Your task to perform on an android device: change keyboard looks Image 0: 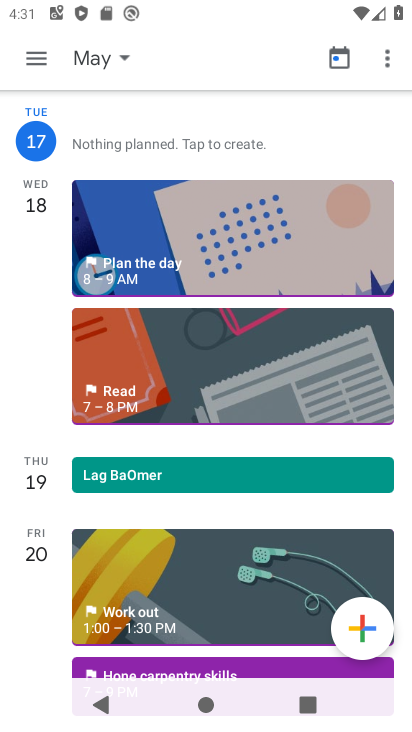
Step 0: press home button
Your task to perform on an android device: change keyboard looks Image 1: 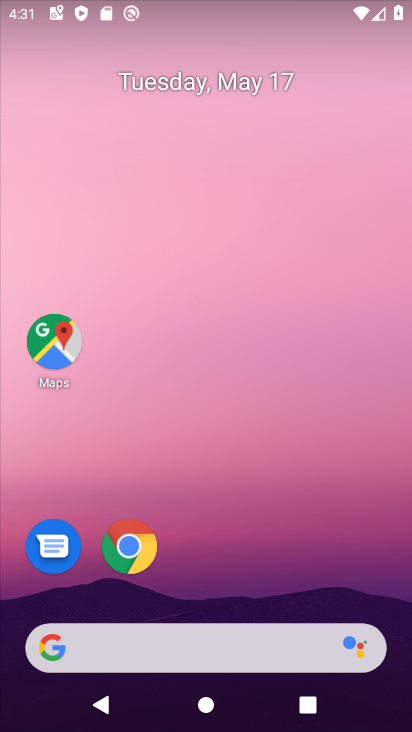
Step 1: drag from (232, 501) to (260, 6)
Your task to perform on an android device: change keyboard looks Image 2: 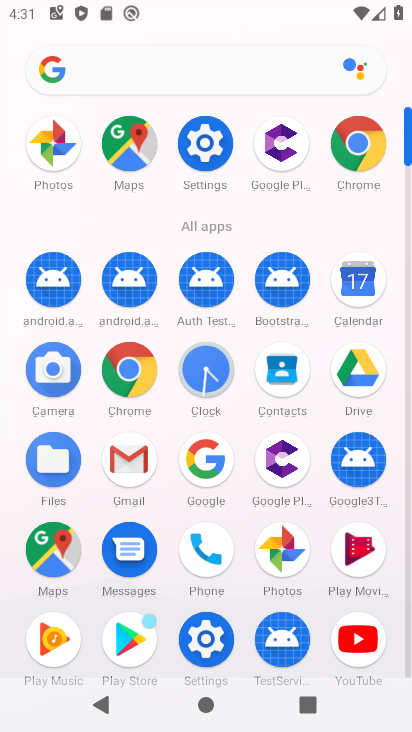
Step 2: click (212, 649)
Your task to perform on an android device: change keyboard looks Image 3: 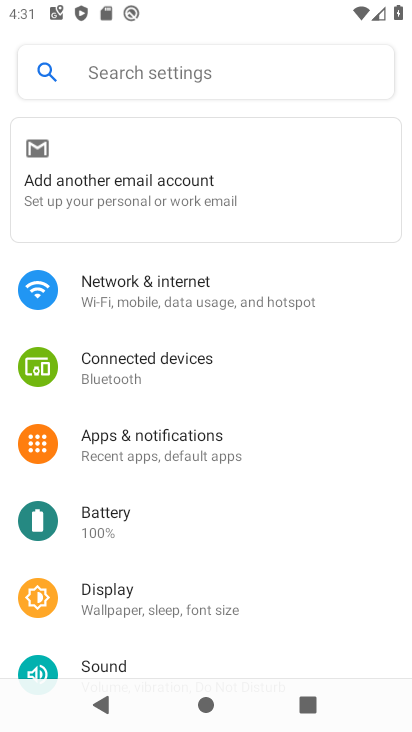
Step 3: drag from (187, 577) to (263, 214)
Your task to perform on an android device: change keyboard looks Image 4: 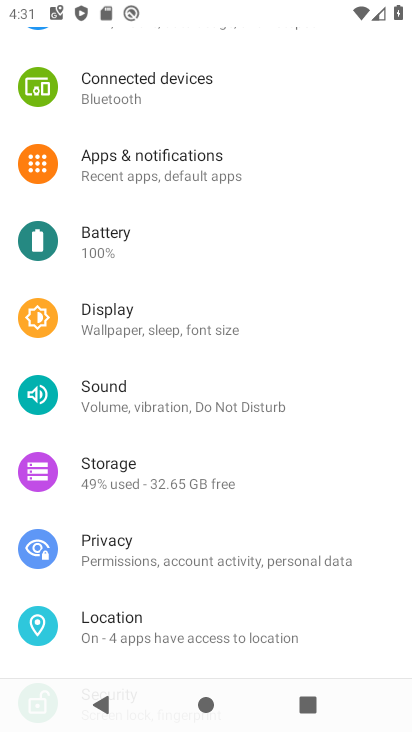
Step 4: drag from (158, 636) to (177, 310)
Your task to perform on an android device: change keyboard looks Image 5: 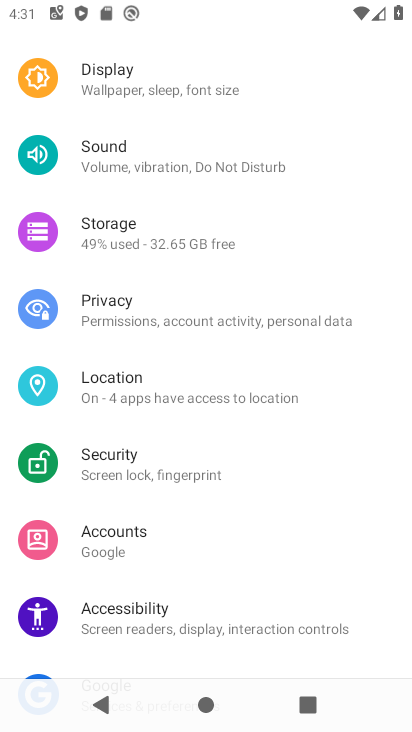
Step 5: drag from (160, 576) to (216, 195)
Your task to perform on an android device: change keyboard looks Image 6: 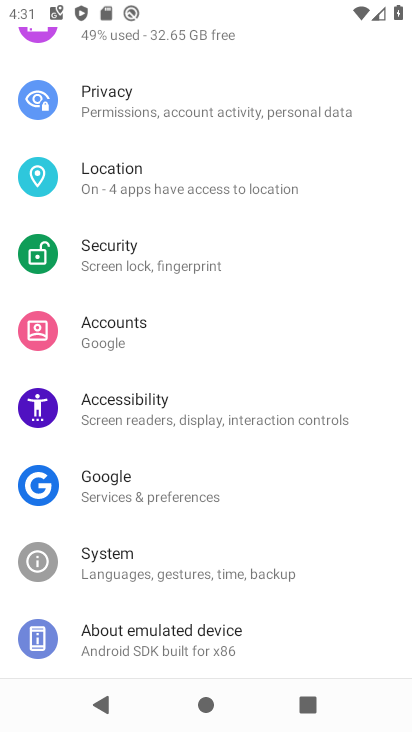
Step 6: click (131, 577)
Your task to perform on an android device: change keyboard looks Image 7: 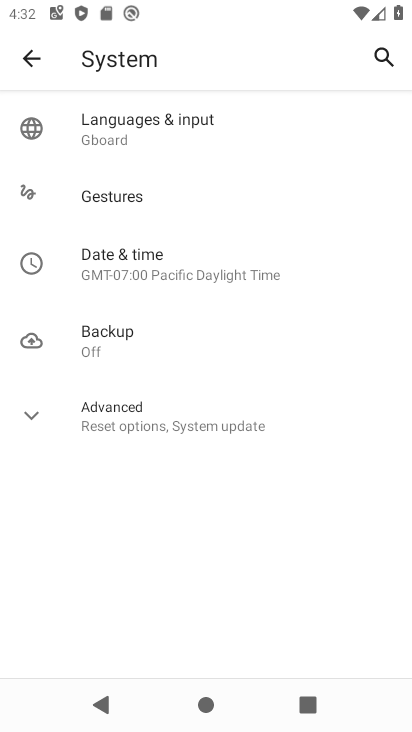
Step 7: click (148, 142)
Your task to perform on an android device: change keyboard looks Image 8: 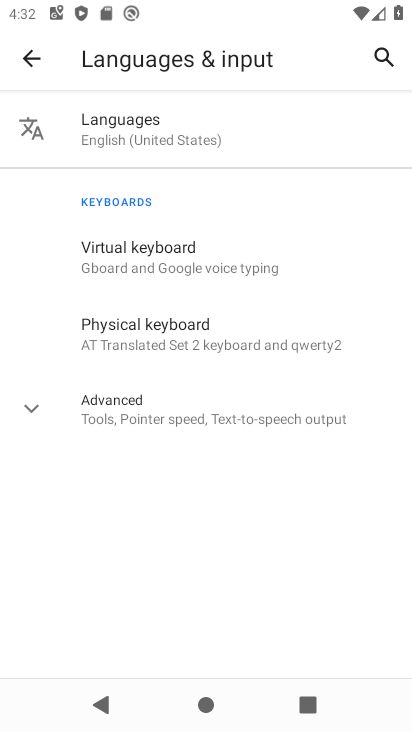
Step 8: click (148, 256)
Your task to perform on an android device: change keyboard looks Image 9: 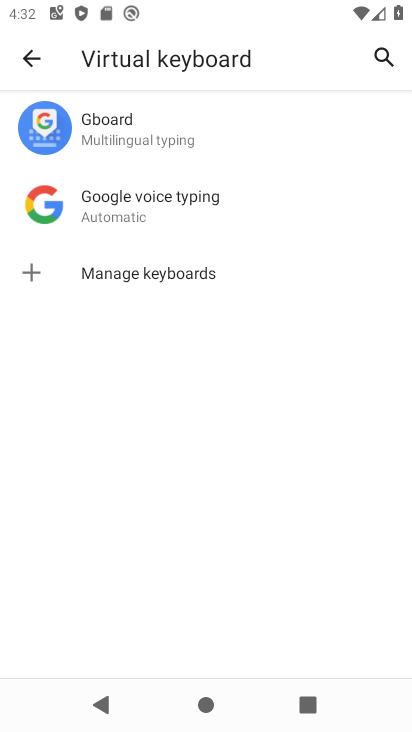
Step 9: click (122, 145)
Your task to perform on an android device: change keyboard looks Image 10: 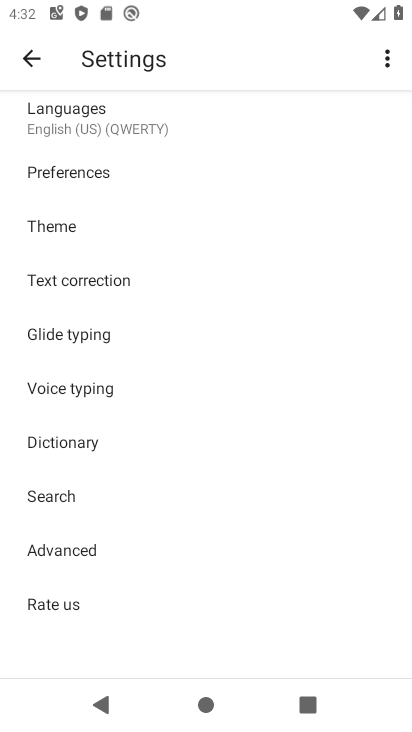
Step 10: click (63, 233)
Your task to perform on an android device: change keyboard looks Image 11: 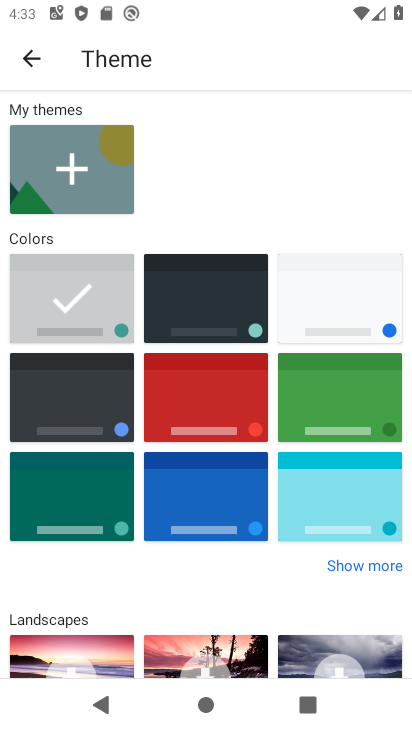
Step 11: click (251, 328)
Your task to perform on an android device: change keyboard looks Image 12: 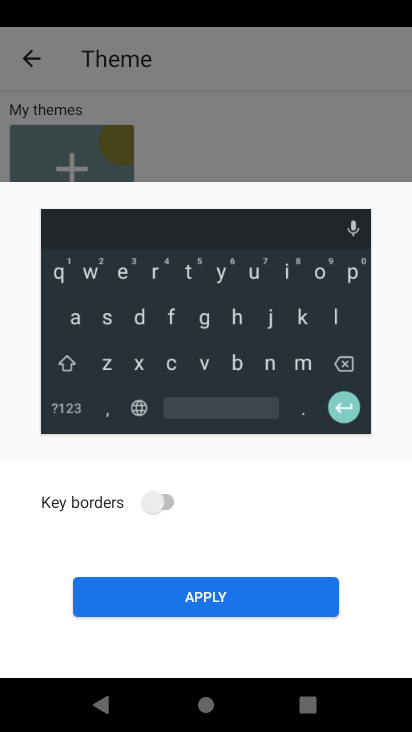
Step 12: click (242, 319)
Your task to perform on an android device: change keyboard looks Image 13: 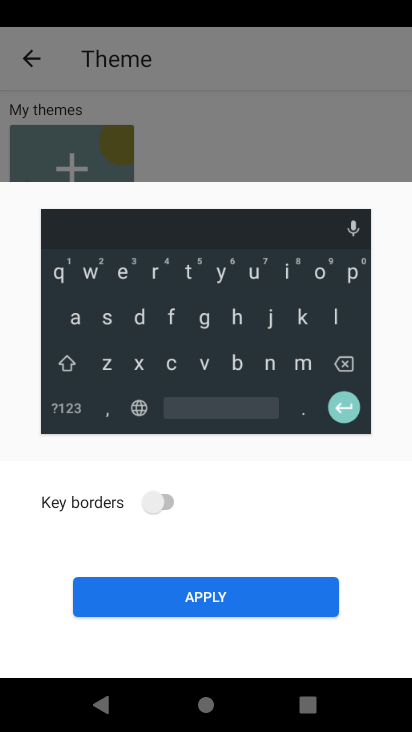
Step 13: click (252, 334)
Your task to perform on an android device: change keyboard looks Image 14: 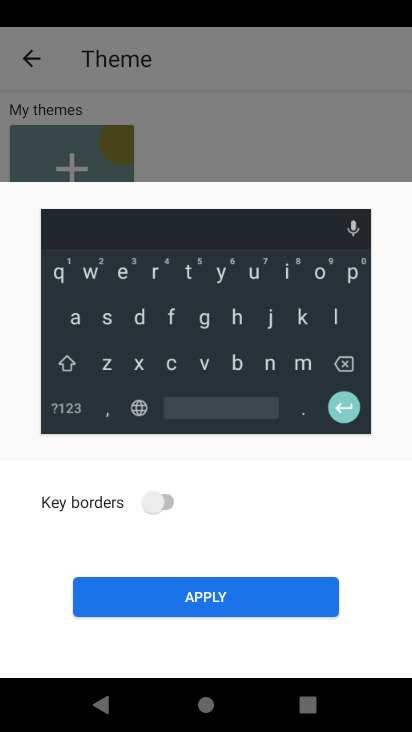
Step 14: click (197, 594)
Your task to perform on an android device: change keyboard looks Image 15: 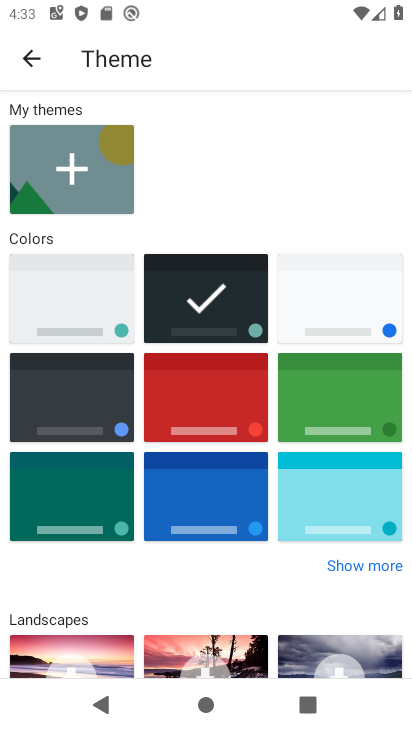
Step 15: task complete